Your task to perform on an android device: open a new tab in the chrome app Image 0: 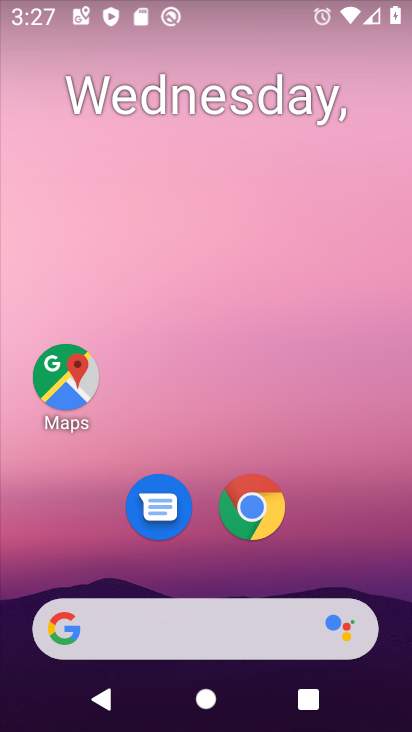
Step 0: click (234, 504)
Your task to perform on an android device: open a new tab in the chrome app Image 1: 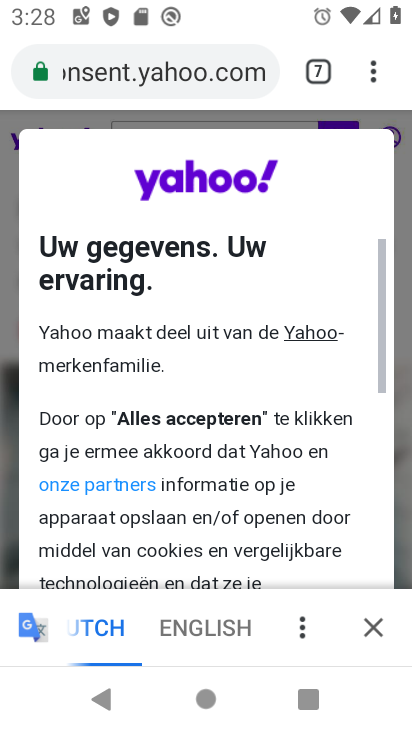
Step 1: click (370, 79)
Your task to perform on an android device: open a new tab in the chrome app Image 2: 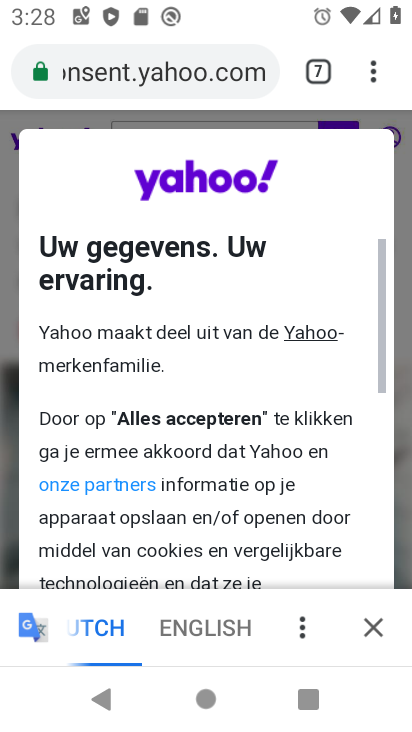
Step 2: click (369, 80)
Your task to perform on an android device: open a new tab in the chrome app Image 3: 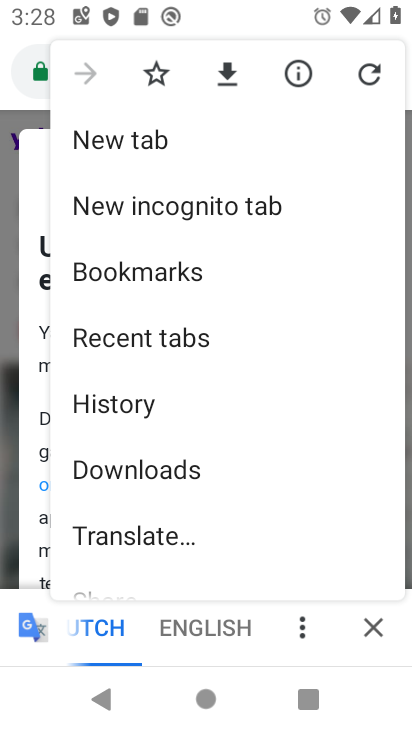
Step 3: click (159, 131)
Your task to perform on an android device: open a new tab in the chrome app Image 4: 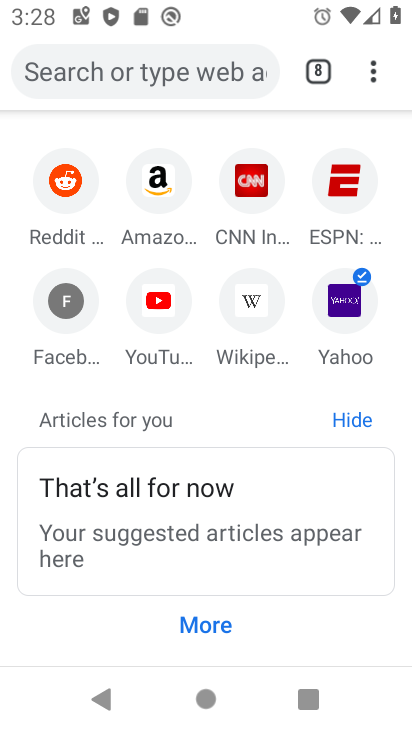
Step 4: task complete